Your task to perform on an android device: Open the web browser Image 0: 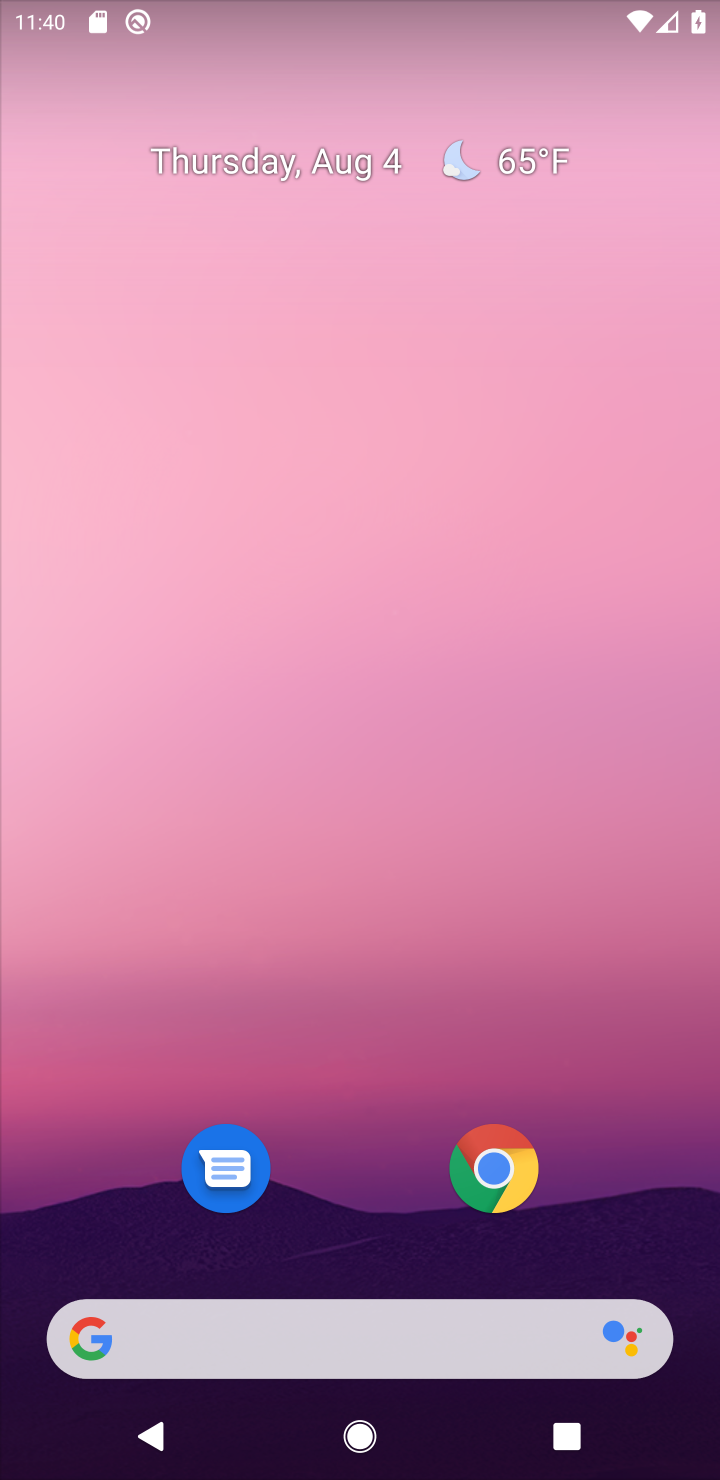
Step 0: drag from (360, 1201) to (524, 52)
Your task to perform on an android device: Open the web browser Image 1: 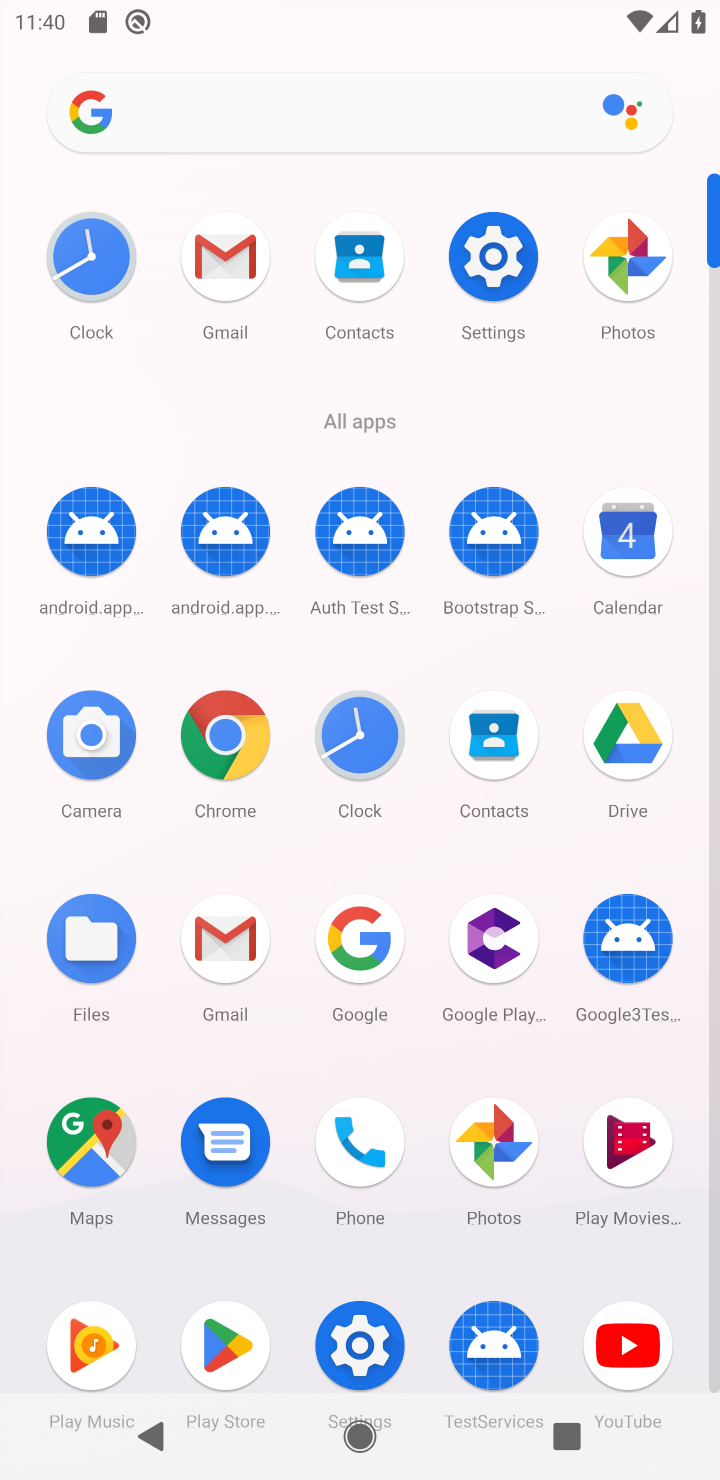
Step 1: click (235, 768)
Your task to perform on an android device: Open the web browser Image 2: 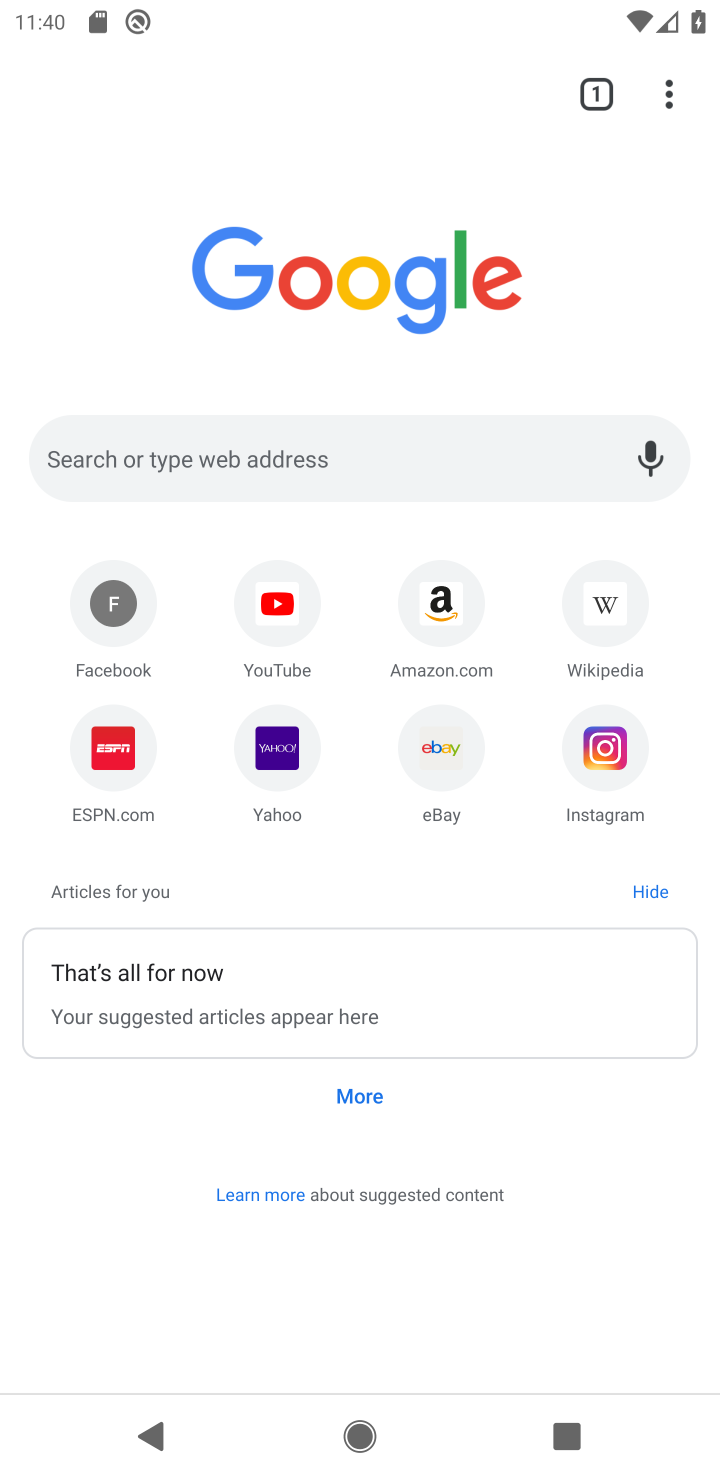
Step 2: task complete